Your task to perform on an android device: Search for the new Apple Watch on Best Buy Image 0: 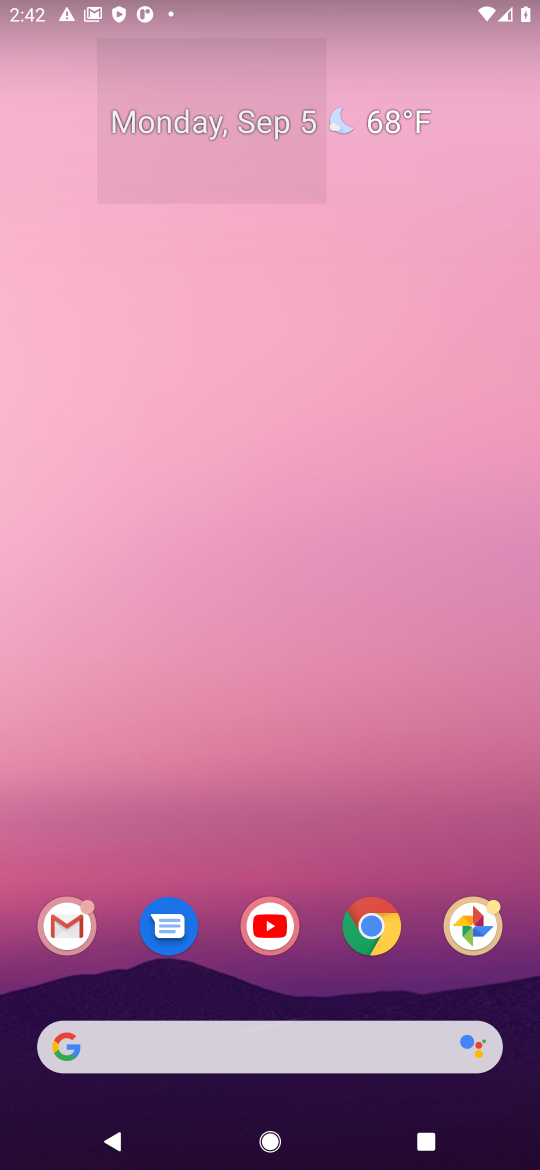
Step 0: click (377, 936)
Your task to perform on an android device: Search for the new Apple Watch on Best Buy Image 1: 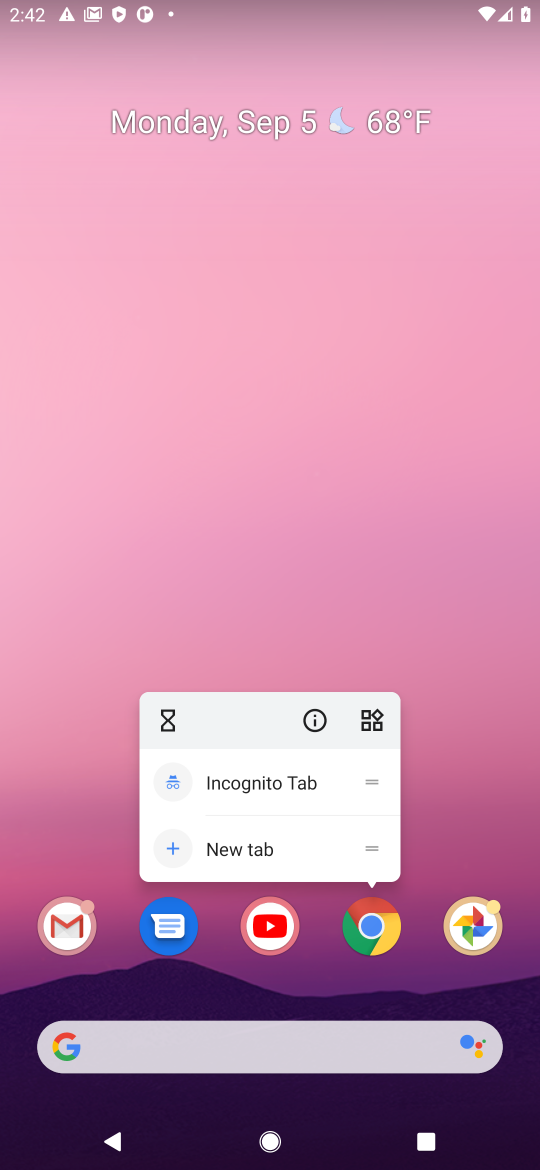
Step 1: click (374, 936)
Your task to perform on an android device: Search for the new Apple Watch on Best Buy Image 2: 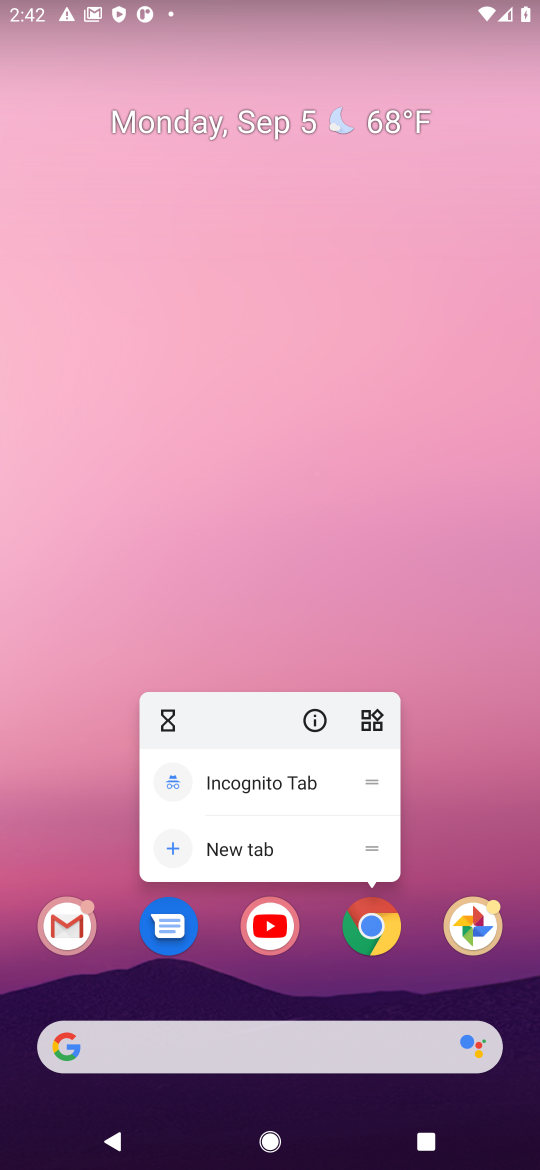
Step 2: click (369, 935)
Your task to perform on an android device: Search for the new Apple Watch on Best Buy Image 3: 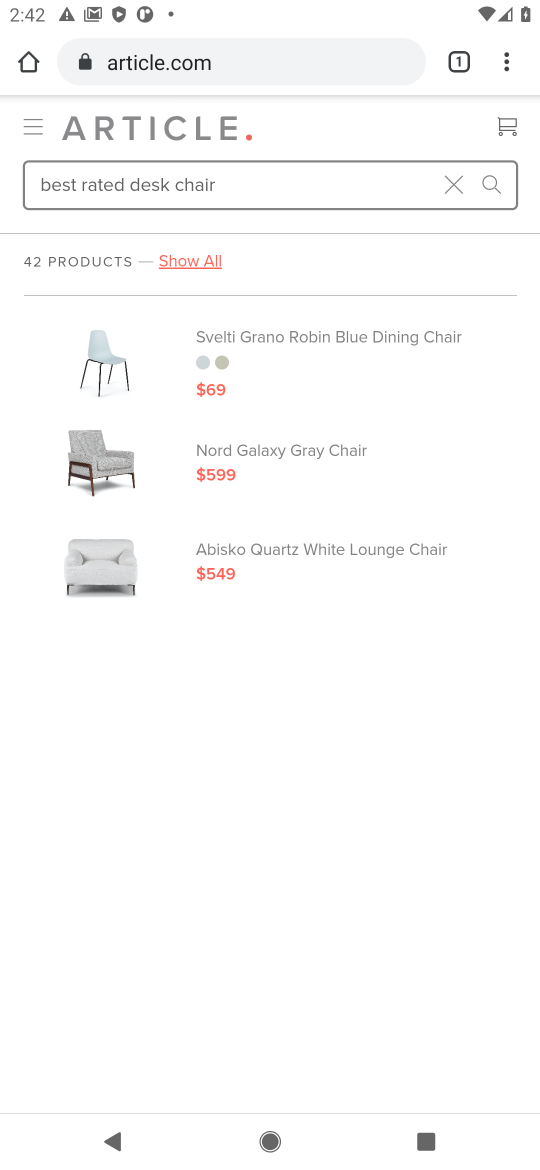
Step 3: click (200, 68)
Your task to perform on an android device: Search for the new Apple Watch on Best Buy Image 4: 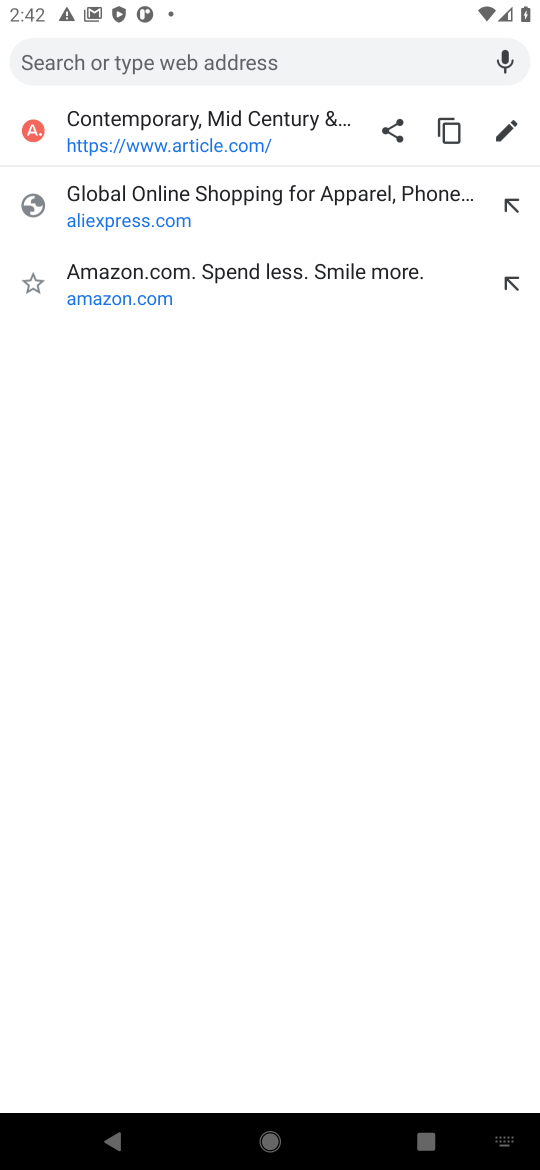
Step 4: type "best buy"
Your task to perform on an android device: Search for the new Apple Watch on Best Buy Image 5: 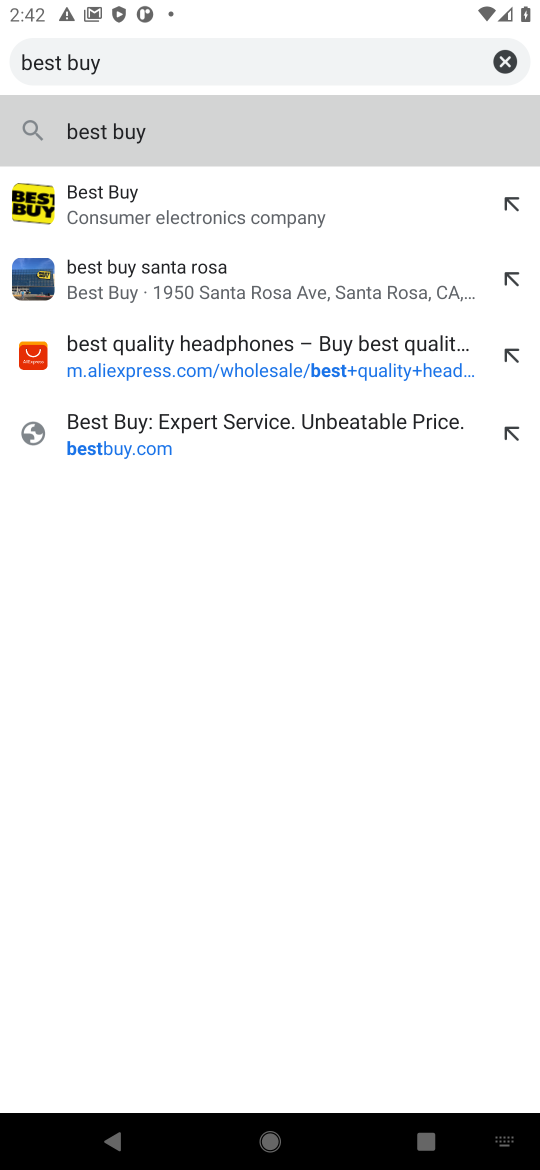
Step 5: click (133, 201)
Your task to perform on an android device: Search for the new Apple Watch on Best Buy Image 6: 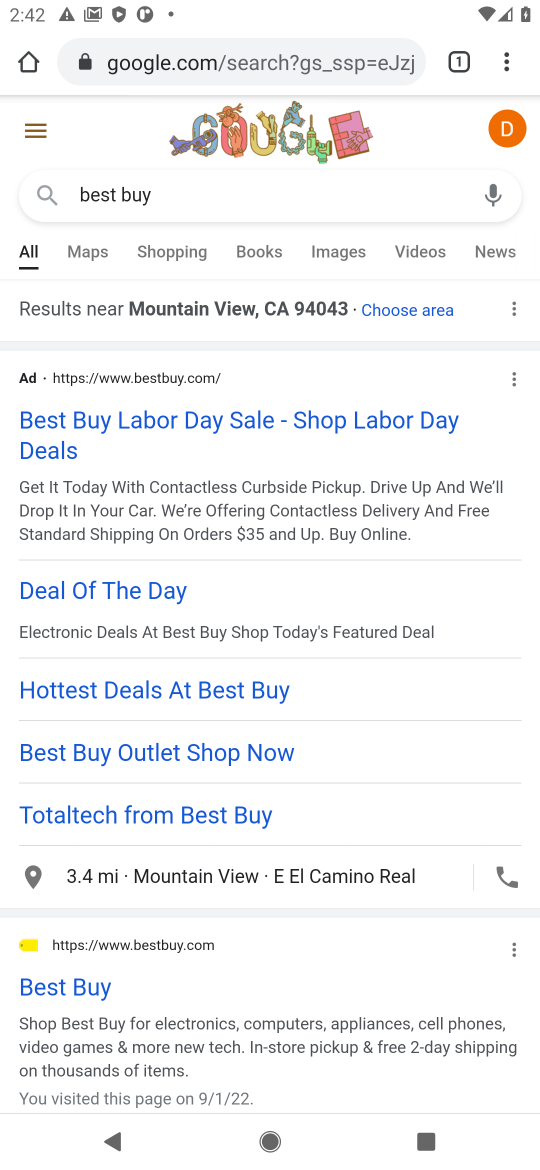
Step 6: click (48, 980)
Your task to perform on an android device: Search for the new Apple Watch on Best Buy Image 7: 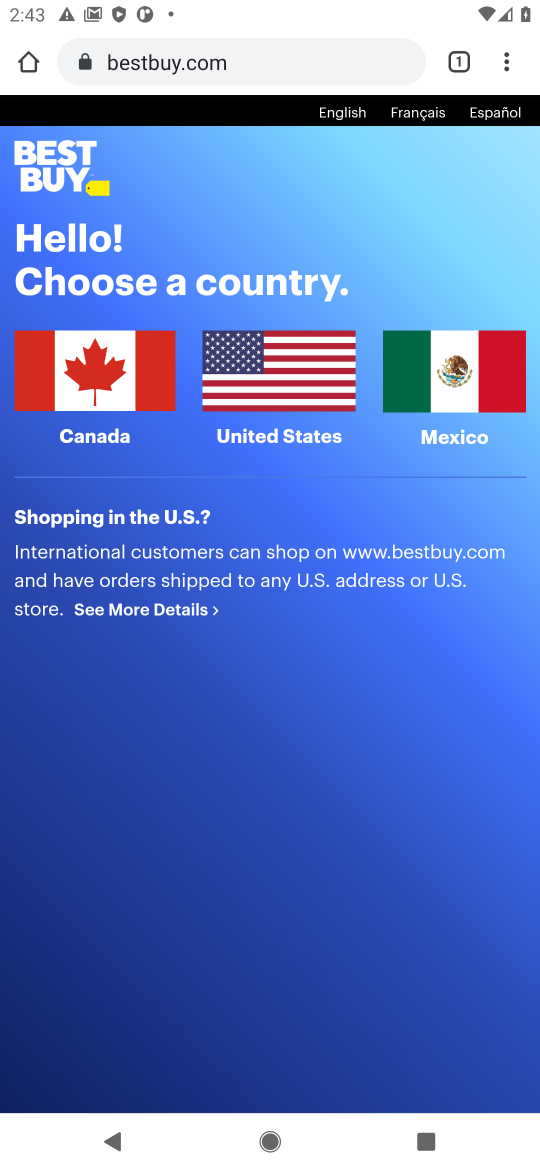
Step 7: task complete